Your task to perform on an android device: add a contact in the contacts app Image 0: 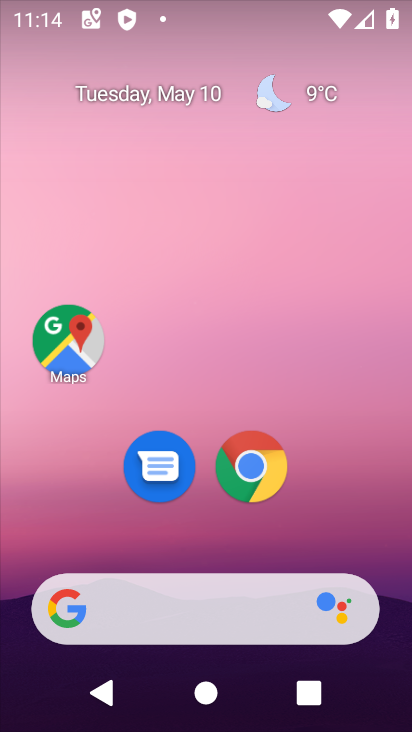
Step 0: drag from (255, 539) to (281, 19)
Your task to perform on an android device: add a contact in the contacts app Image 1: 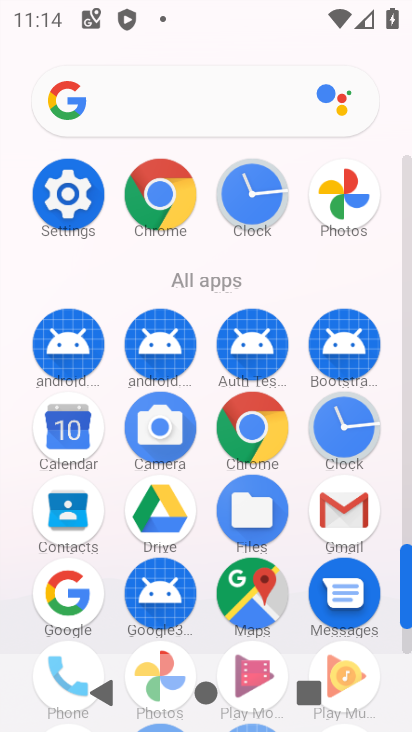
Step 1: click (77, 514)
Your task to perform on an android device: add a contact in the contacts app Image 2: 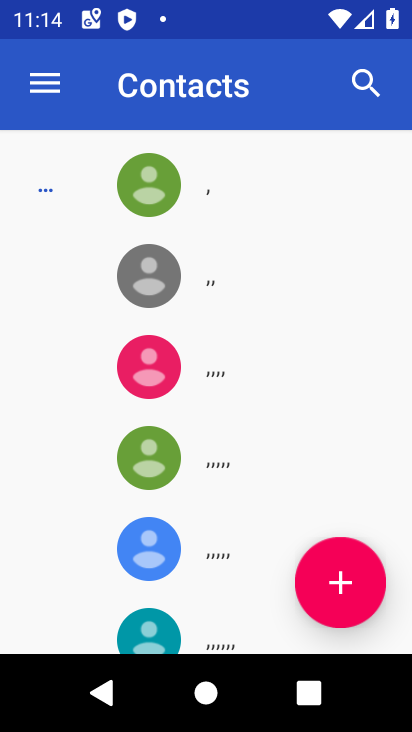
Step 2: click (353, 570)
Your task to perform on an android device: add a contact in the contacts app Image 3: 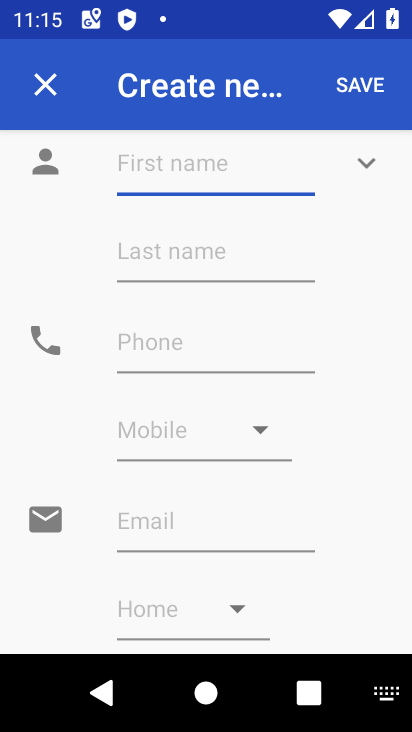
Step 3: type "lkjhgfdsaqpmz"
Your task to perform on an android device: add a contact in the contacts app Image 4: 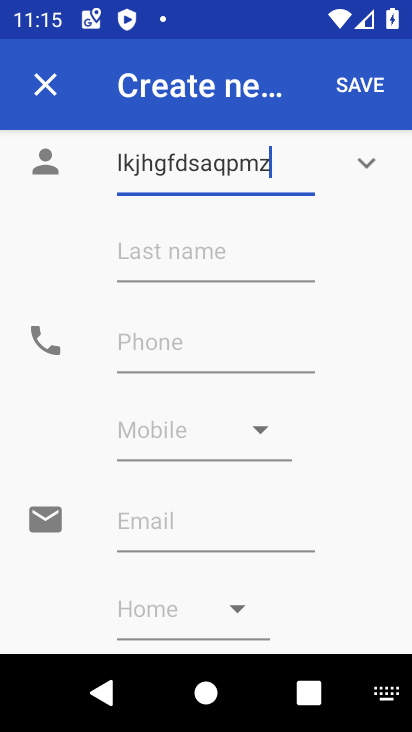
Step 4: click (126, 344)
Your task to perform on an android device: add a contact in the contacts app Image 5: 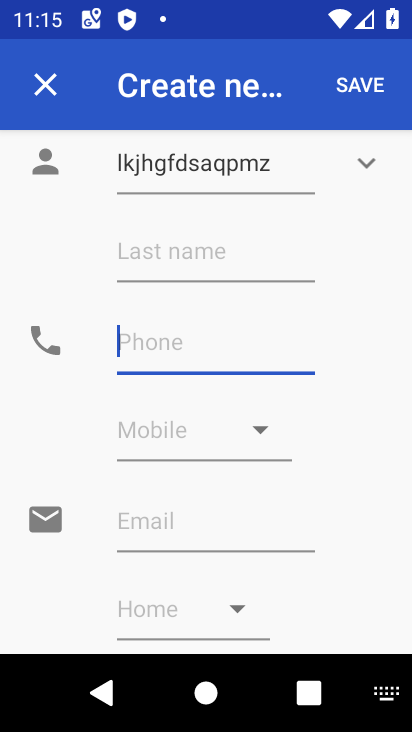
Step 5: type "6789009878"
Your task to perform on an android device: add a contact in the contacts app Image 6: 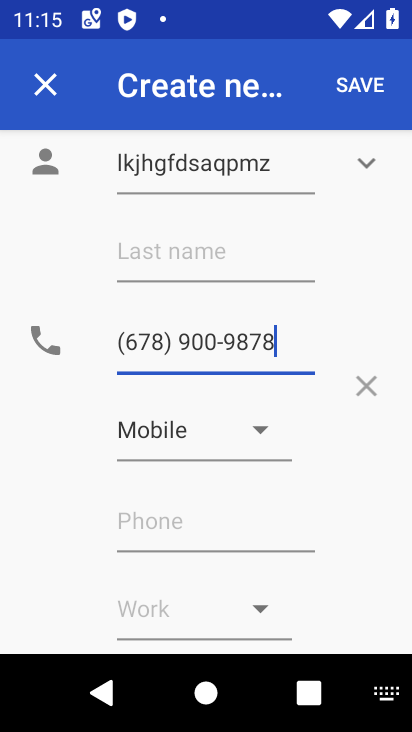
Step 6: click (317, 87)
Your task to perform on an android device: add a contact in the contacts app Image 7: 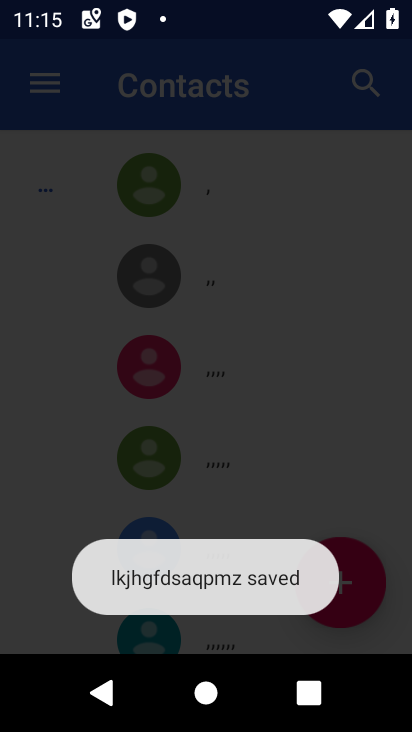
Step 7: click (347, 87)
Your task to perform on an android device: add a contact in the contacts app Image 8: 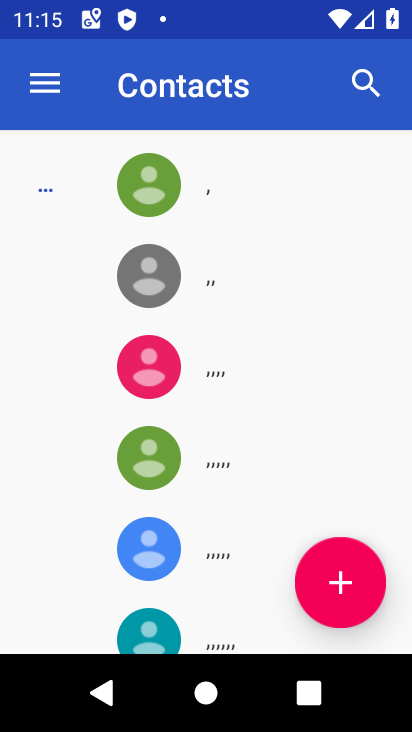
Step 8: task complete